Your task to perform on an android device: What's on the menu at Pizza Hut? Image 0: 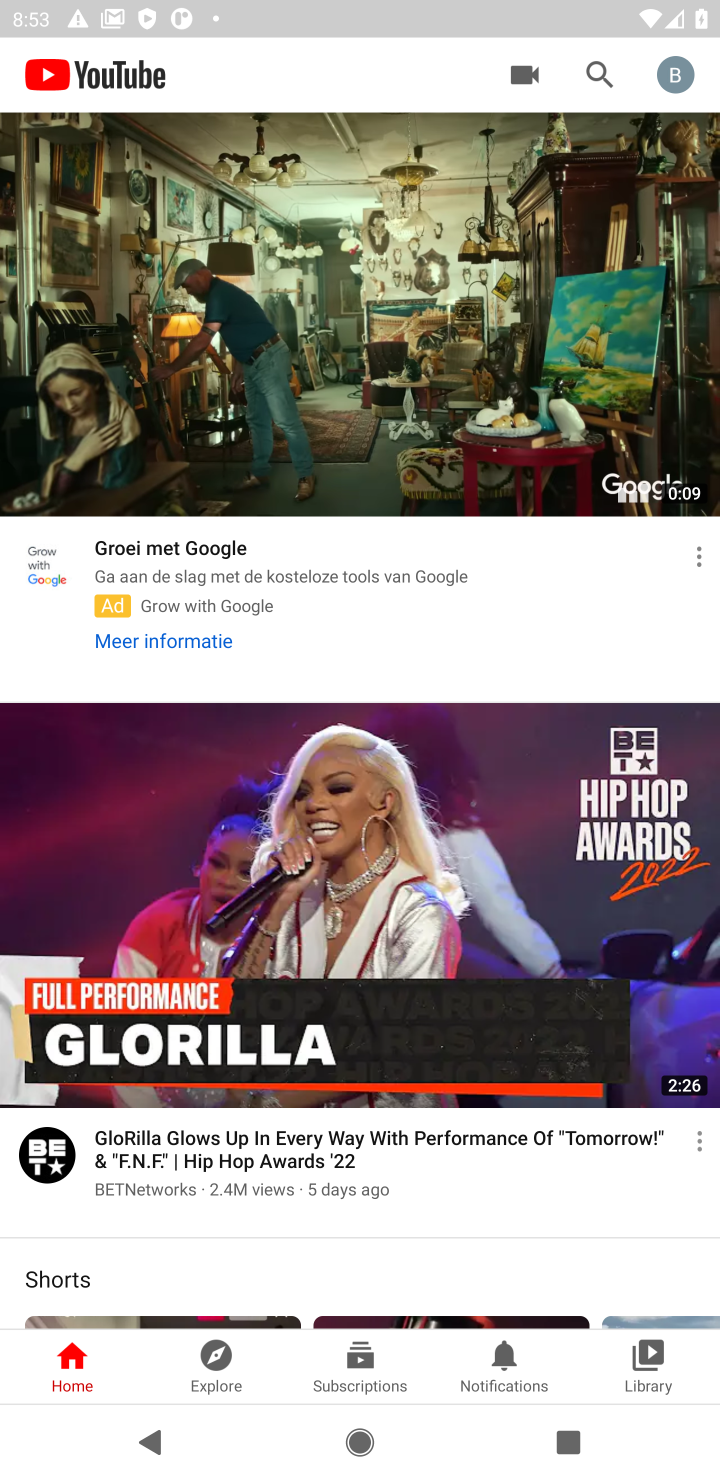
Step 0: press home button
Your task to perform on an android device: What's on the menu at Pizza Hut? Image 1: 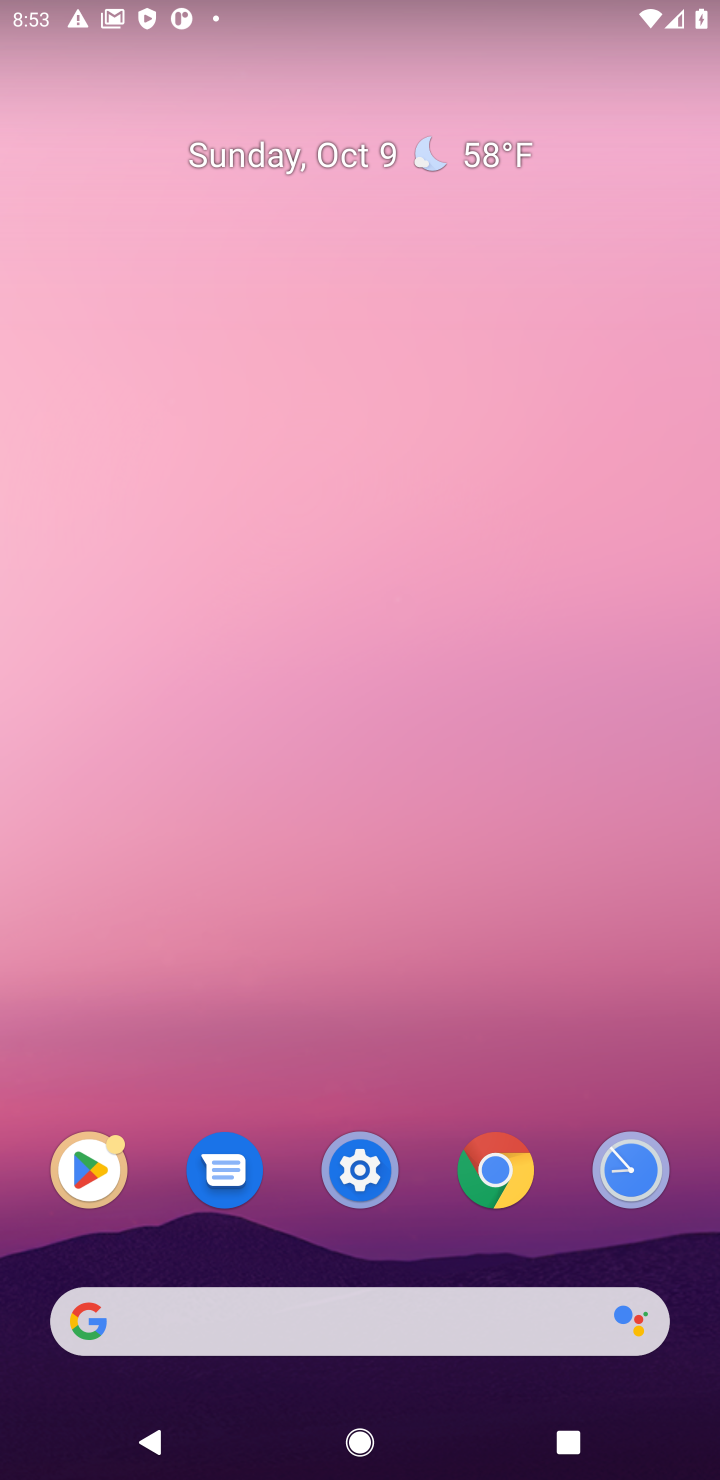
Step 1: click (285, 1316)
Your task to perform on an android device: What's on the menu at Pizza Hut? Image 2: 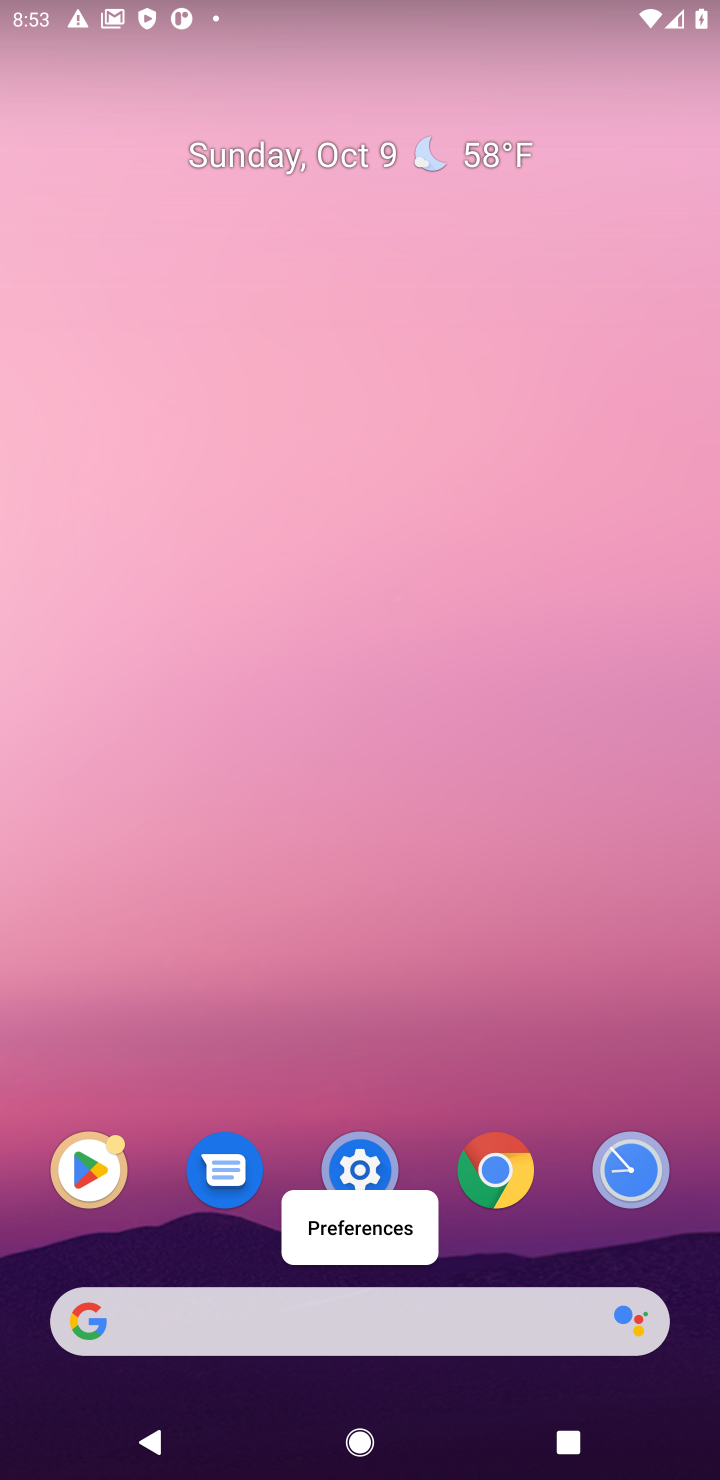
Step 2: click (332, 1316)
Your task to perform on an android device: What's on the menu at Pizza Hut? Image 3: 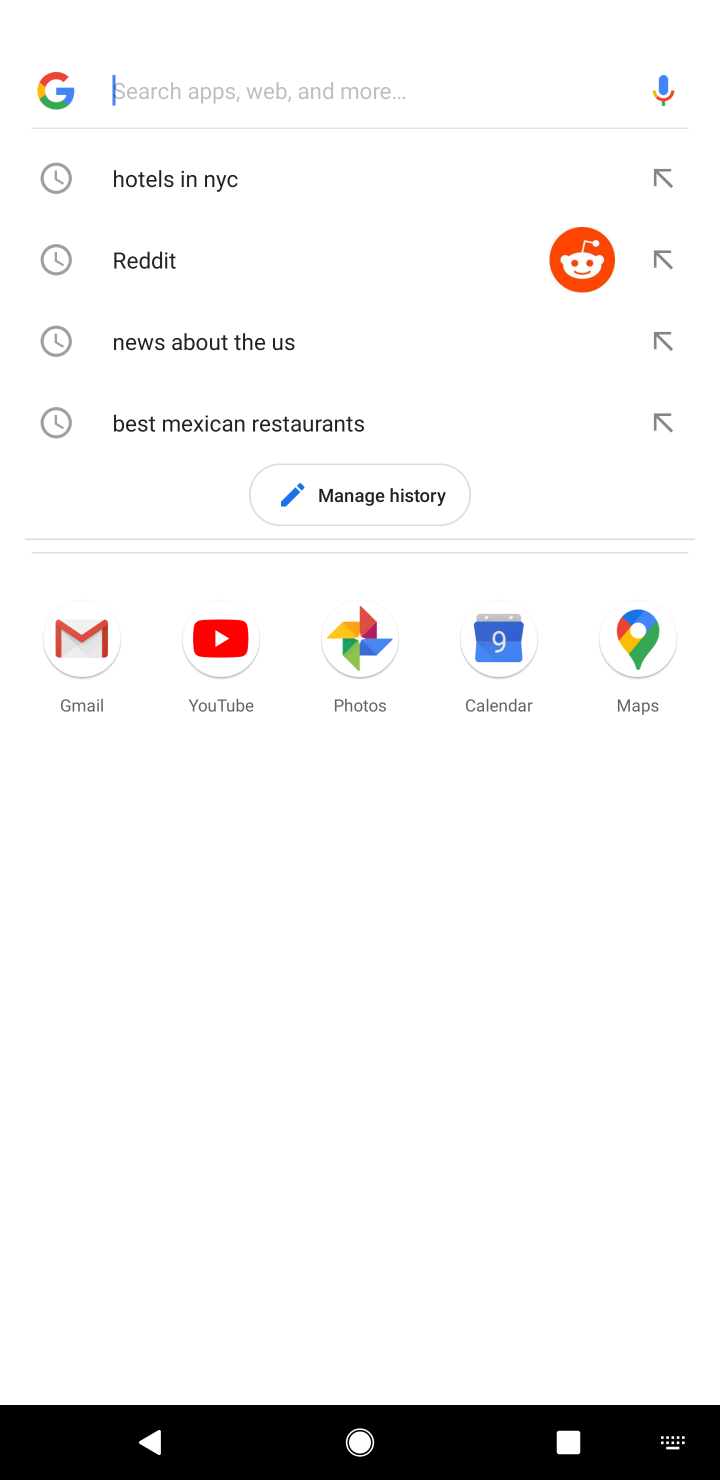
Step 3: type "What's on the menu at Pizza Hut"
Your task to perform on an android device: What's on the menu at Pizza Hut? Image 4: 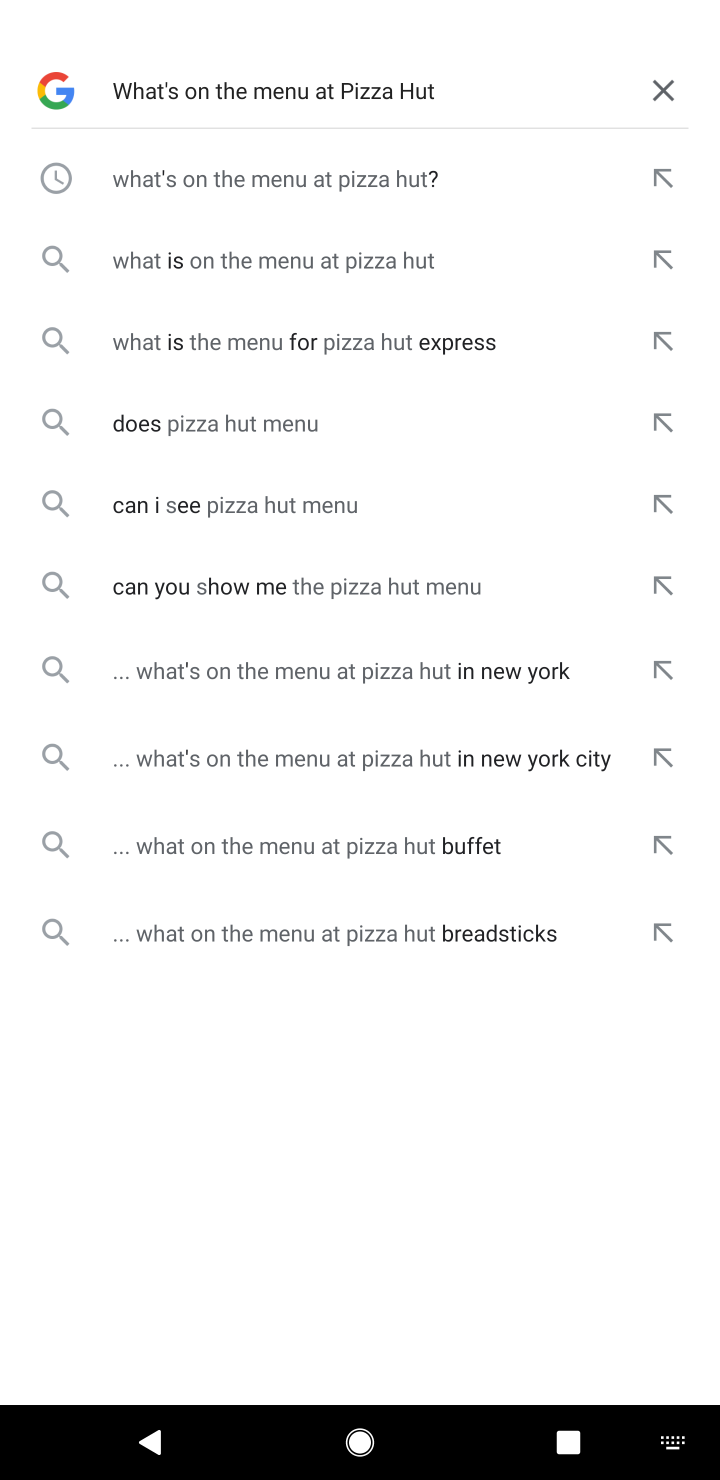
Step 4: click (282, 173)
Your task to perform on an android device: What's on the menu at Pizza Hut? Image 5: 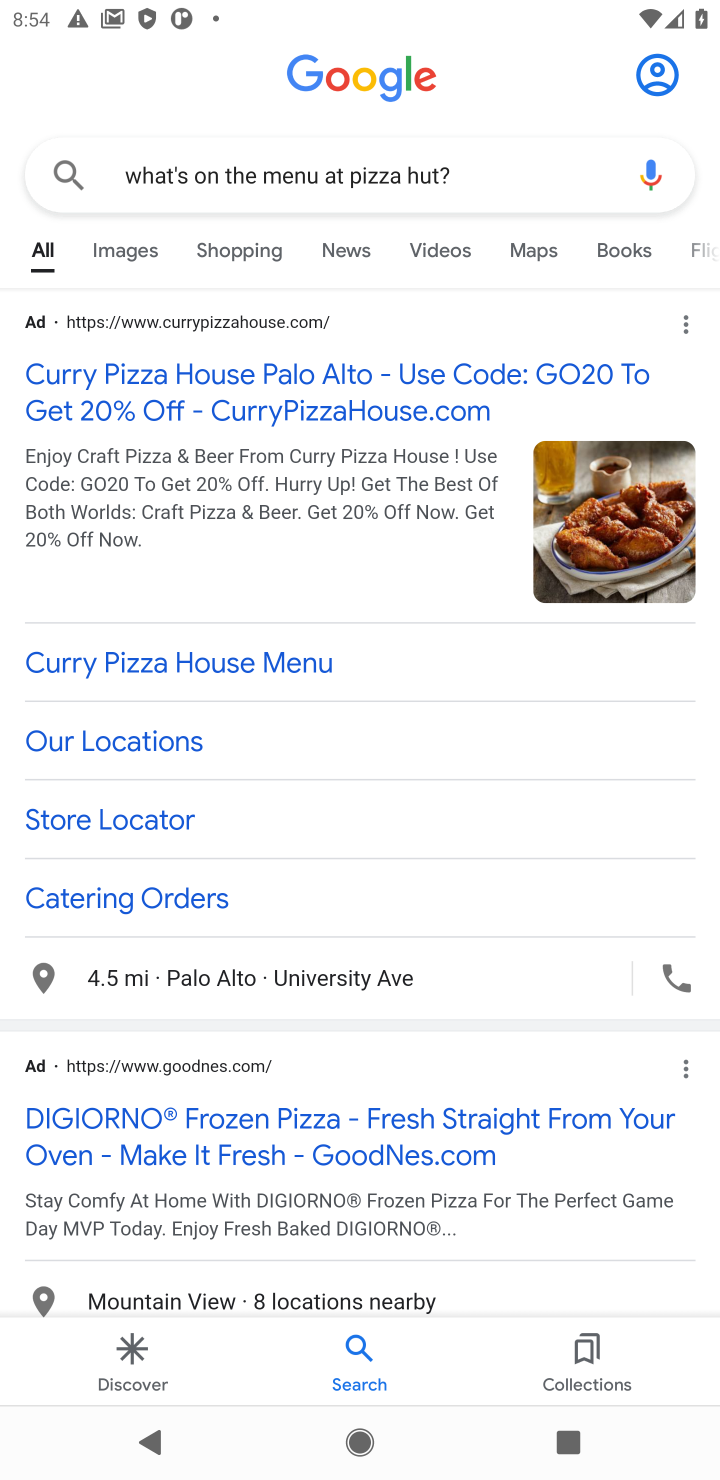
Step 5: task complete